Your task to perform on an android device: check the backup settings in the google photos Image 0: 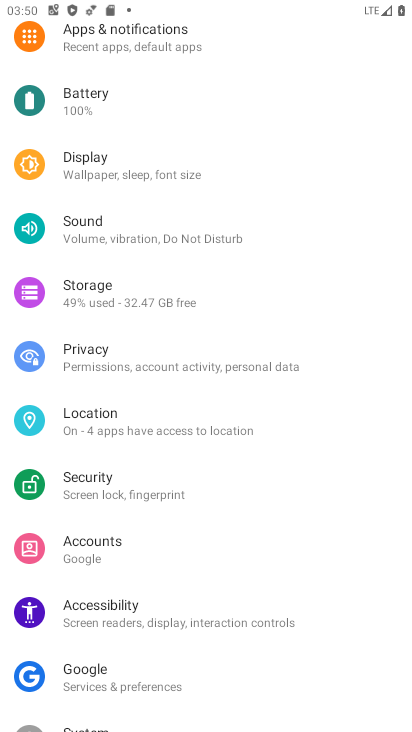
Step 0: press home button
Your task to perform on an android device: check the backup settings in the google photos Image 1: 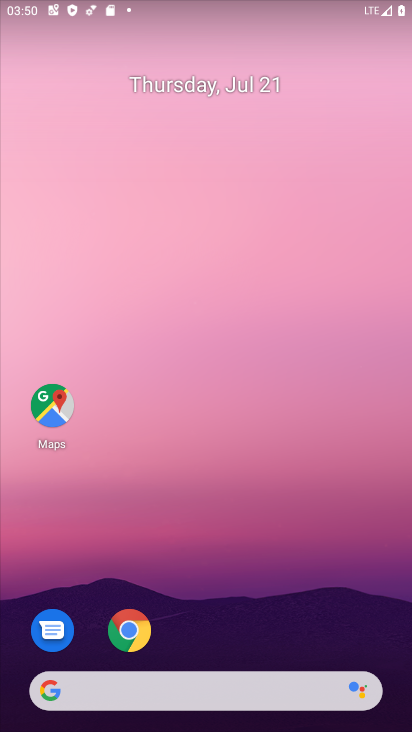
Step 1: drag from (228, 626) to (223, 107)
Your task to perform on an android device: check the backup settings in the google photos Image 2: 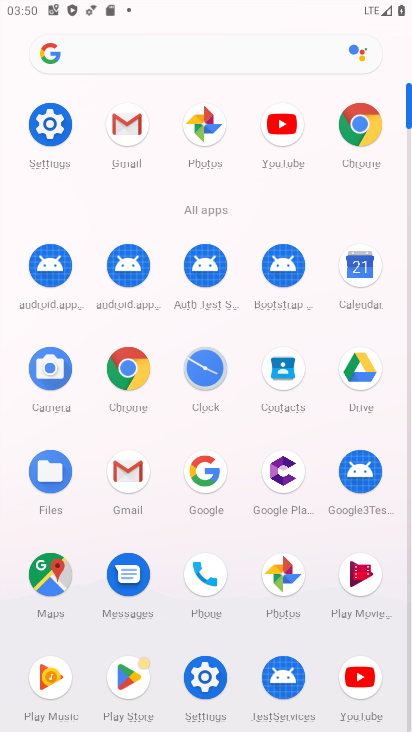
Step 2: click (190, 113)
Your task to perform on an android device: check the backup settings in the google photos Image 3: 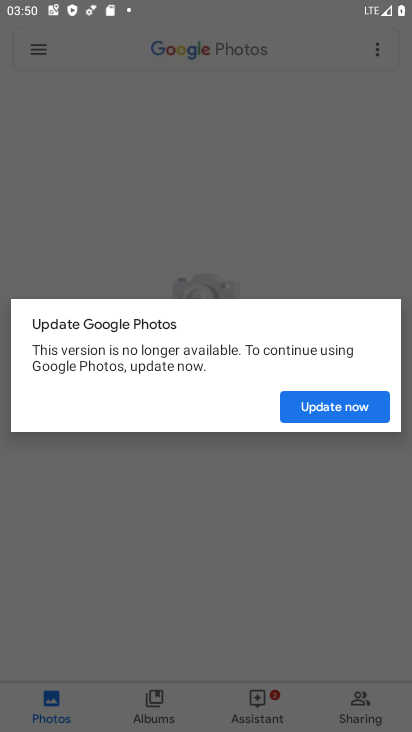
Step 3: click (340, 414)
Your task to perform on an android device: check the backup settings in the google photos Image 4: 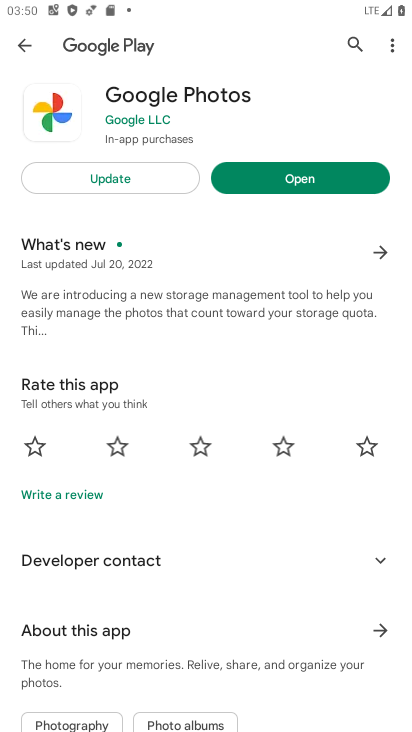
Step 4: click (340, 186)
Your task to perform on an android device: check the backup settings in the google photos Image 5: 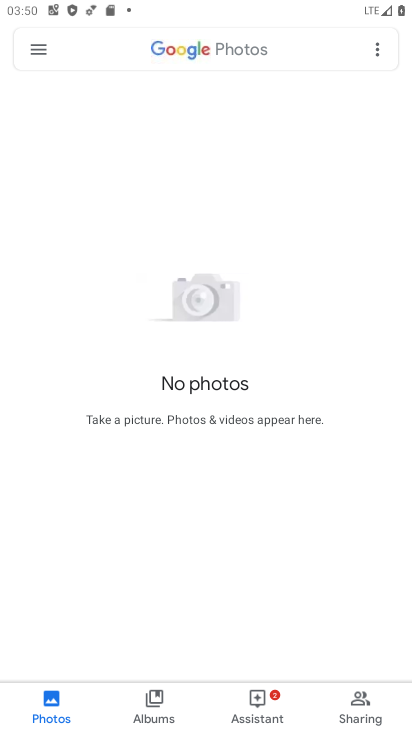
Step 5: click (27, 55)
Your task to perform on an android device: check the backup settings in the google photos Image 6: 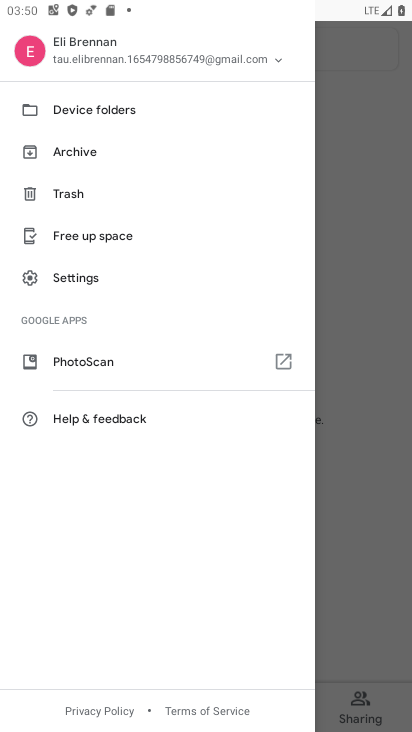
Step 6: click (88, 282)
Your task to perform on an android device: check the backup settings in the google photos Image 7: 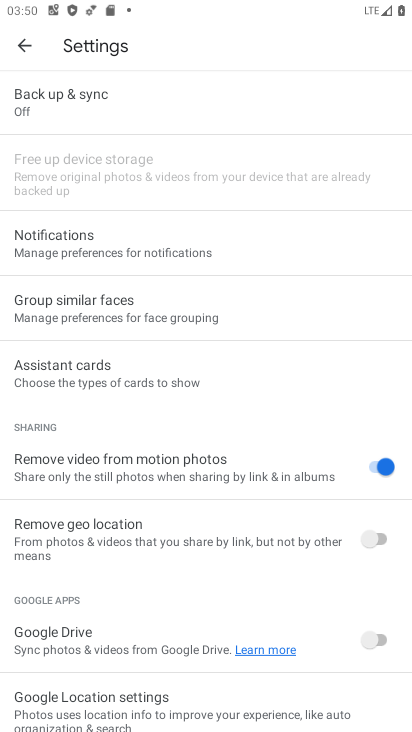
Step 7: click (114, 99)
Your task to perform on an android device: check the backup settings in the google photos Image 8: 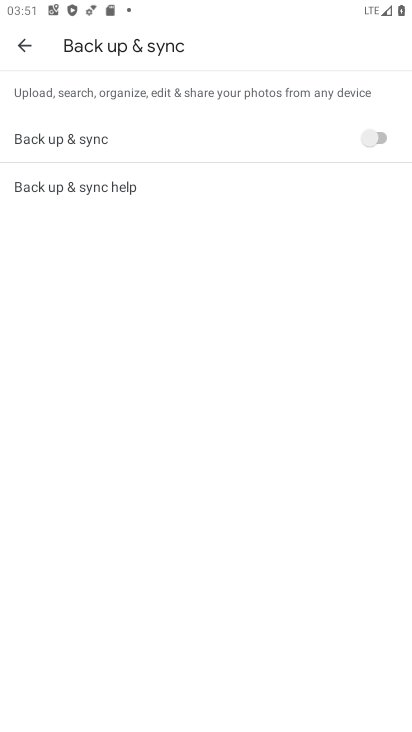
Step 8: task complete